Your task to perform on an android device: Go to settings Image 0: 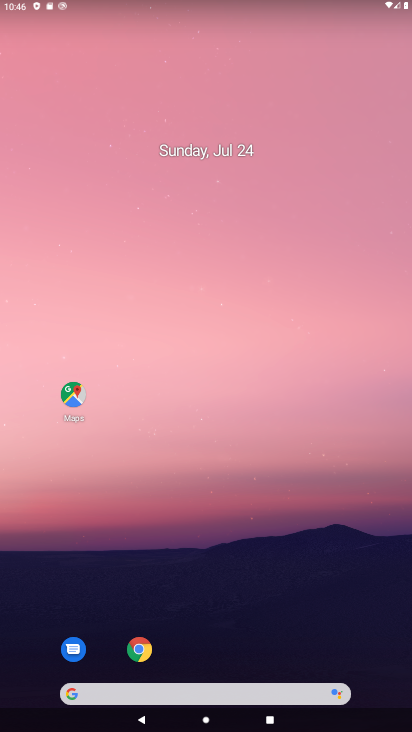
Step 0: drag from (211, 684) to (167, 129)
Your task to perform on an android device: Go to settings Image 1: 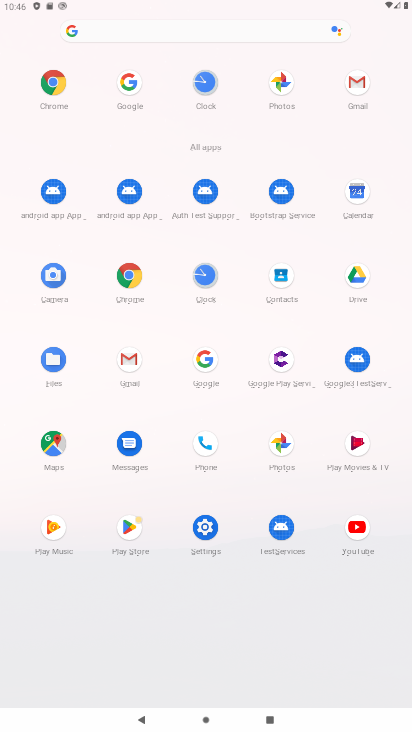
Step 1: click (196, 528)
Your task to perform on an android device: Go to settings Image 2: 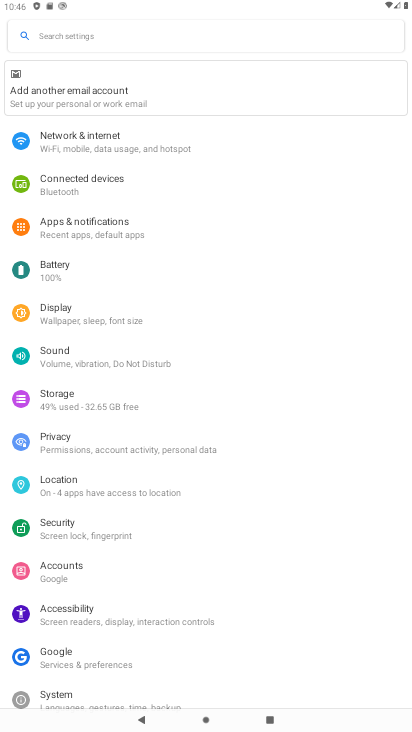
Step 2: task complete